Your task to perform on an android device: What's the news in Bolivia? Image 0: 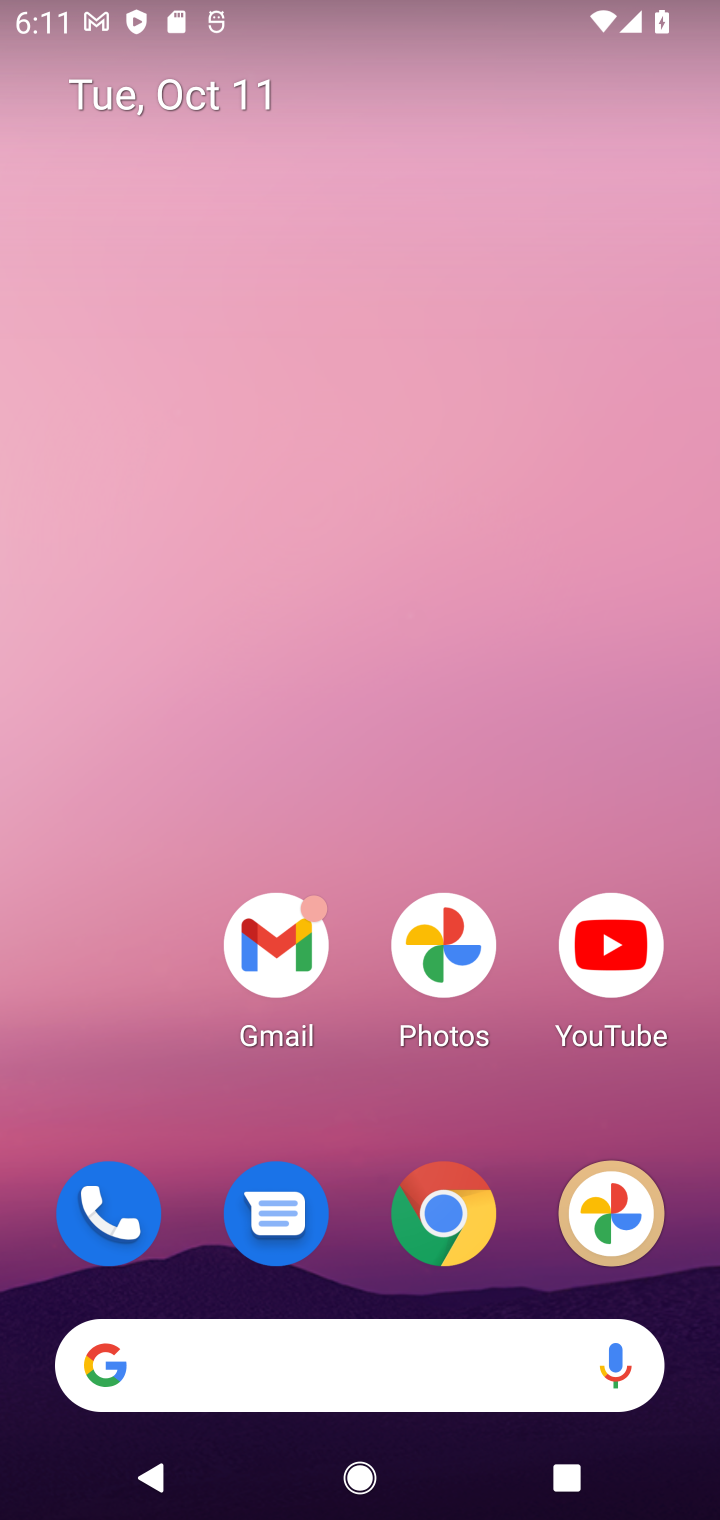
Step 0: drag from (288, 1305) to (201, 552)
Your task to perform on an android device: What's the news in Bolivia? Image 1: 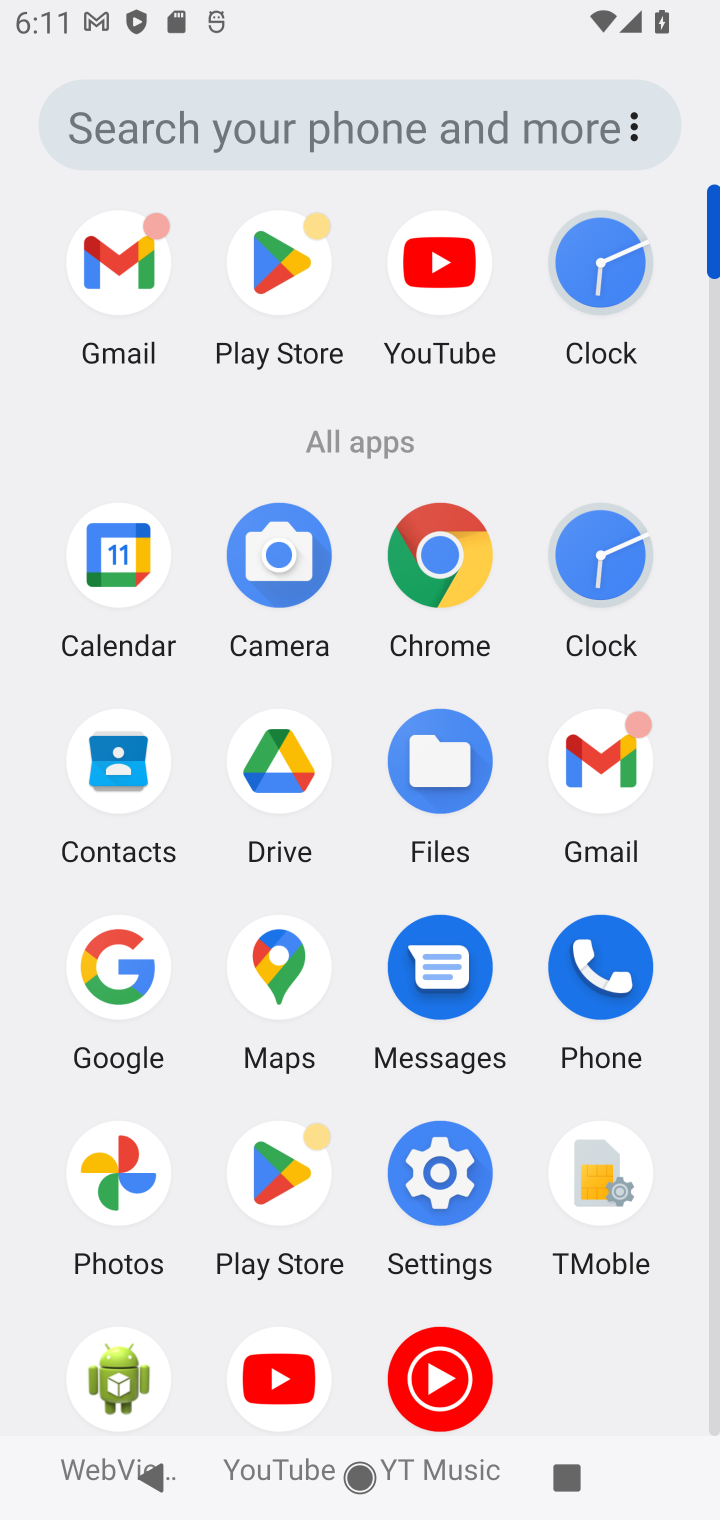
Step 1: click (94, 959)
Your task to perform on an android device: What's the news in Bolivia? Image 2: 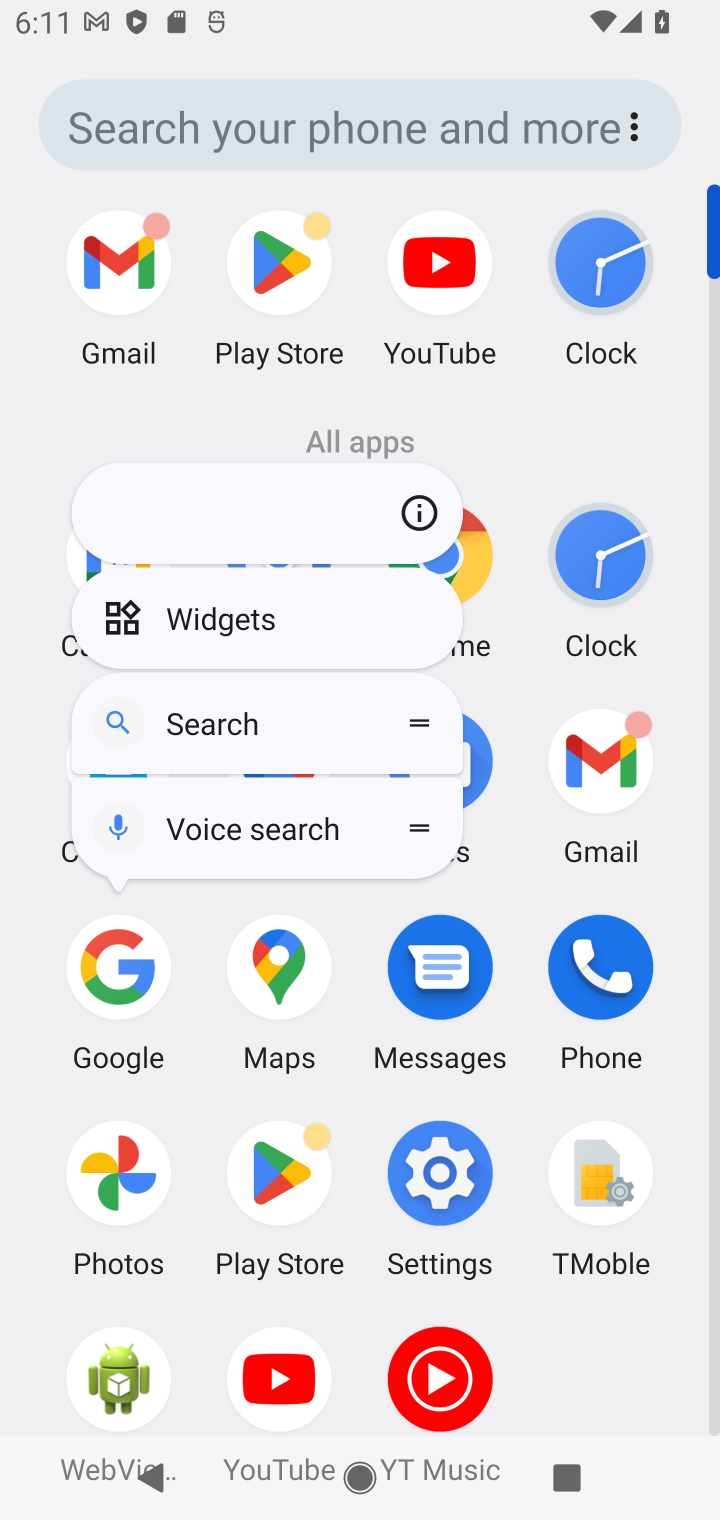
Step 2: click (134, 954)
Your task to perform on an android device: What's the news in Bolivia? Image 3: 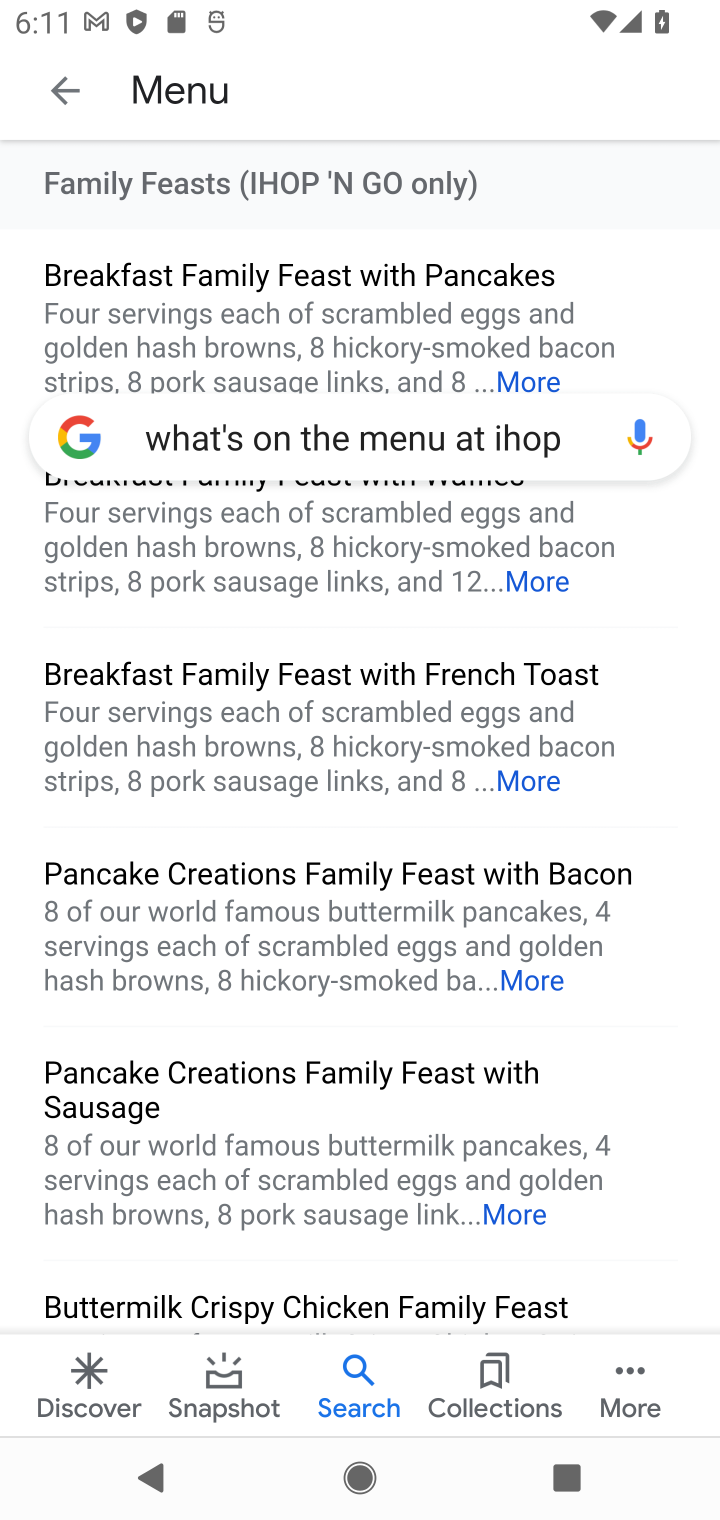
Step 3: click (330, 433)
Your task to perform on an android device: What's the news in Bolivia? Image 4: 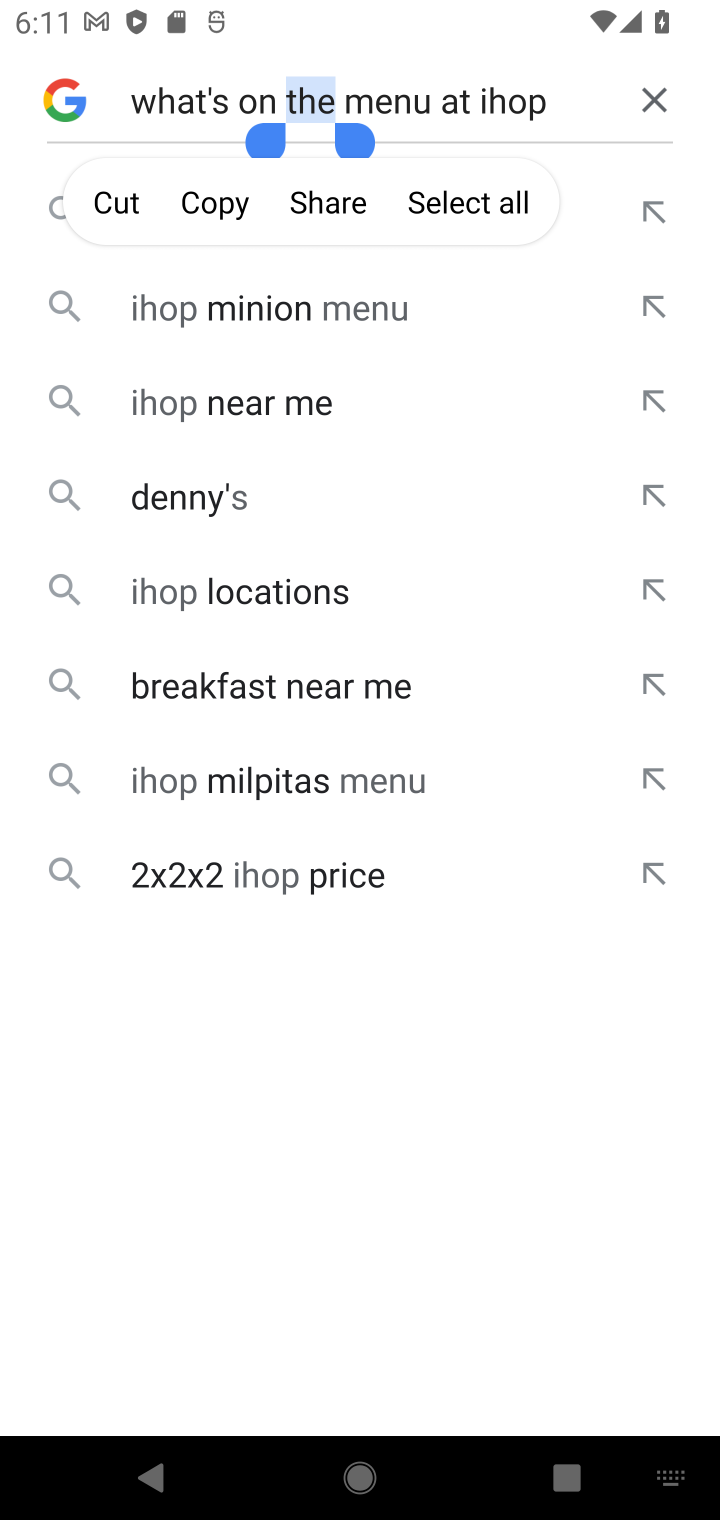
Step 4: click (632, 91)
Your task to perform on an android device: What's the news in Bolivia? Image 5: 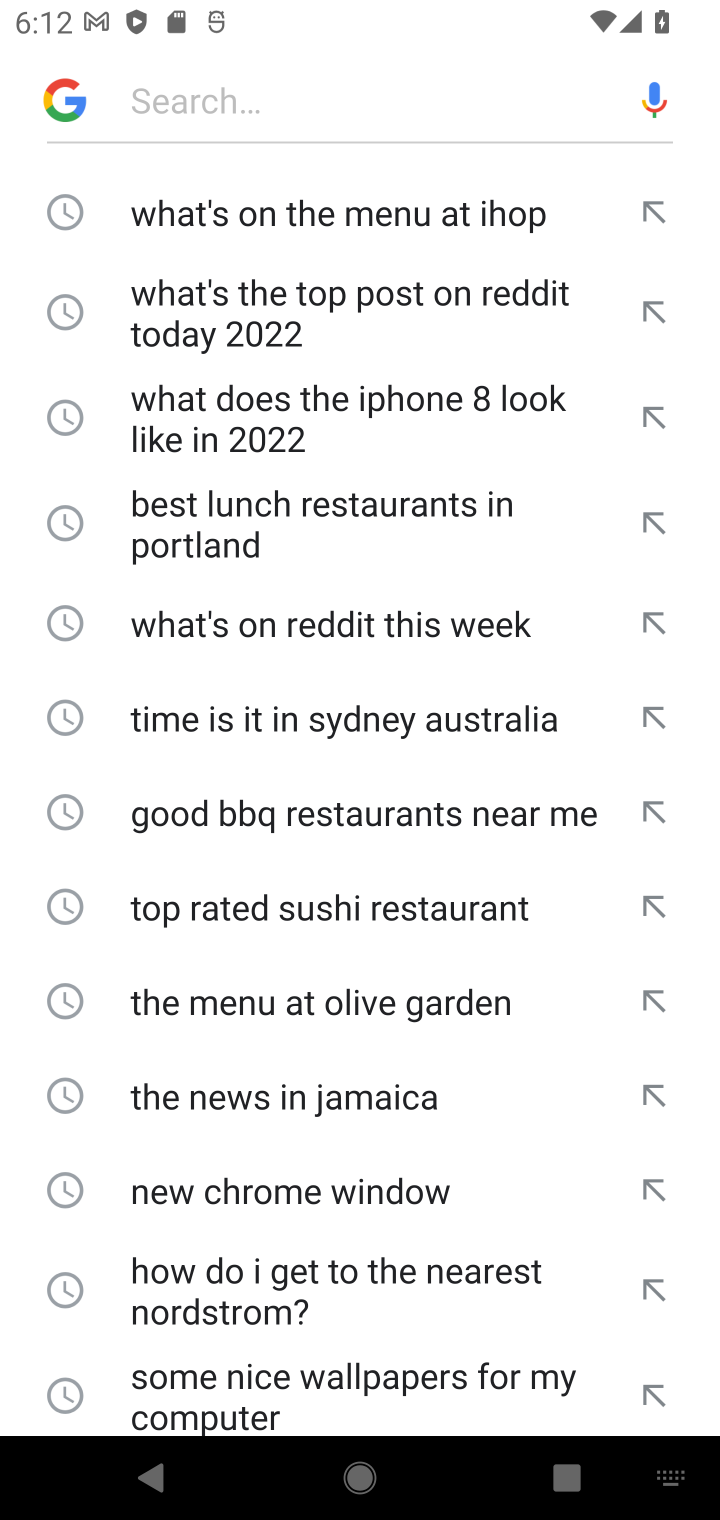
Step 5: click (425, 92)
Your task to perform on an android device: What's the news in Bolivia? Image 6: 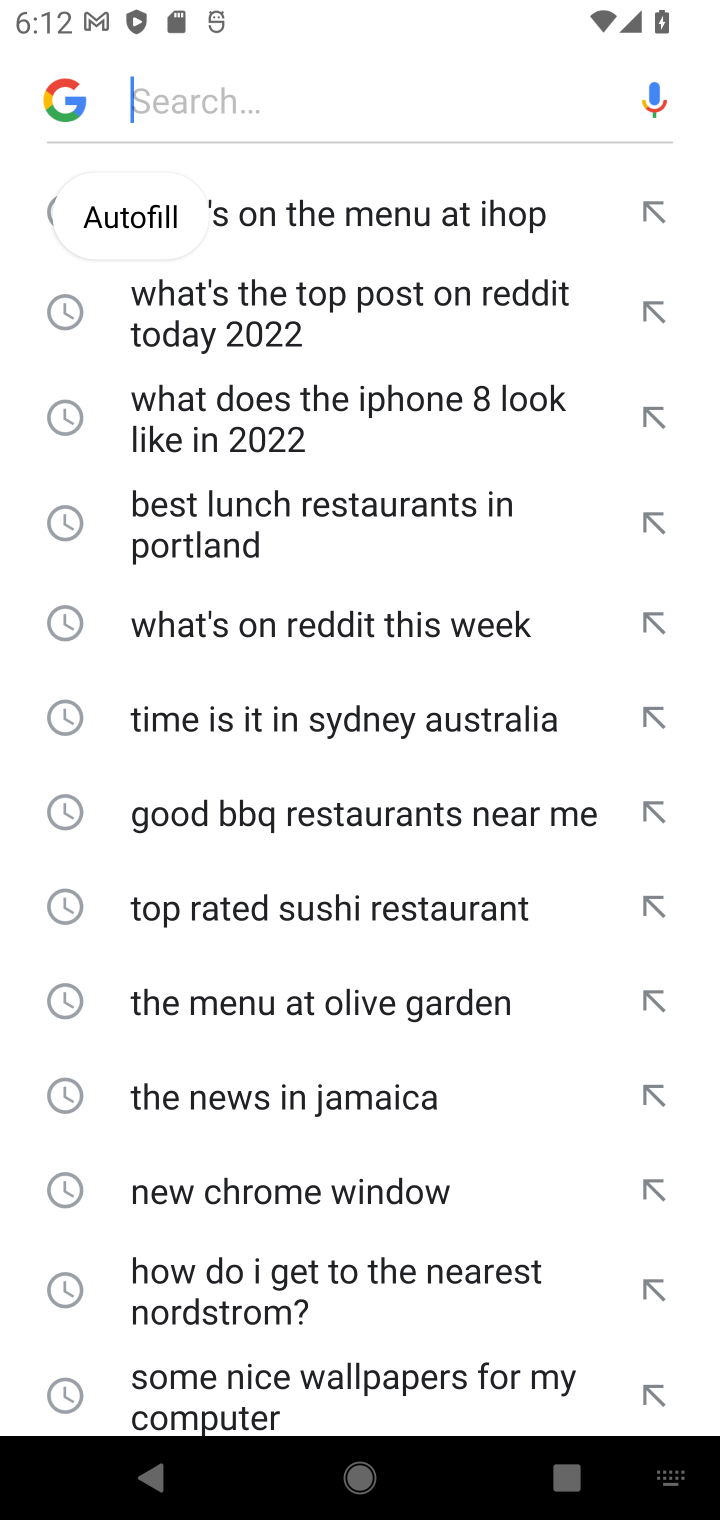
Step 6: click (163, 77)
Your task to perform on an android device: What's the news in Bolivia? Image 7: 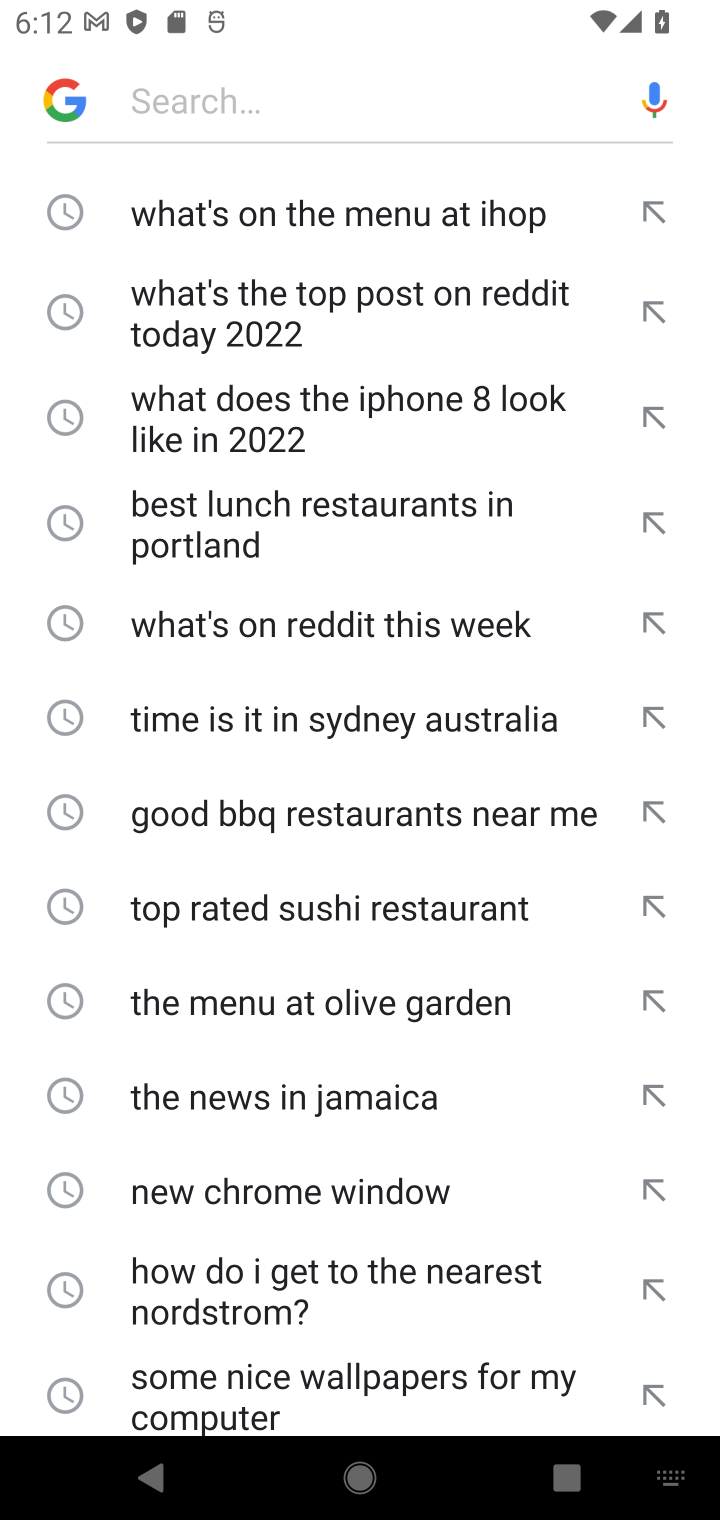
Step 7: type "What's the news in Bolivia? "
Your task to perform on an android device: What's the news in Bolivia? Image 8: 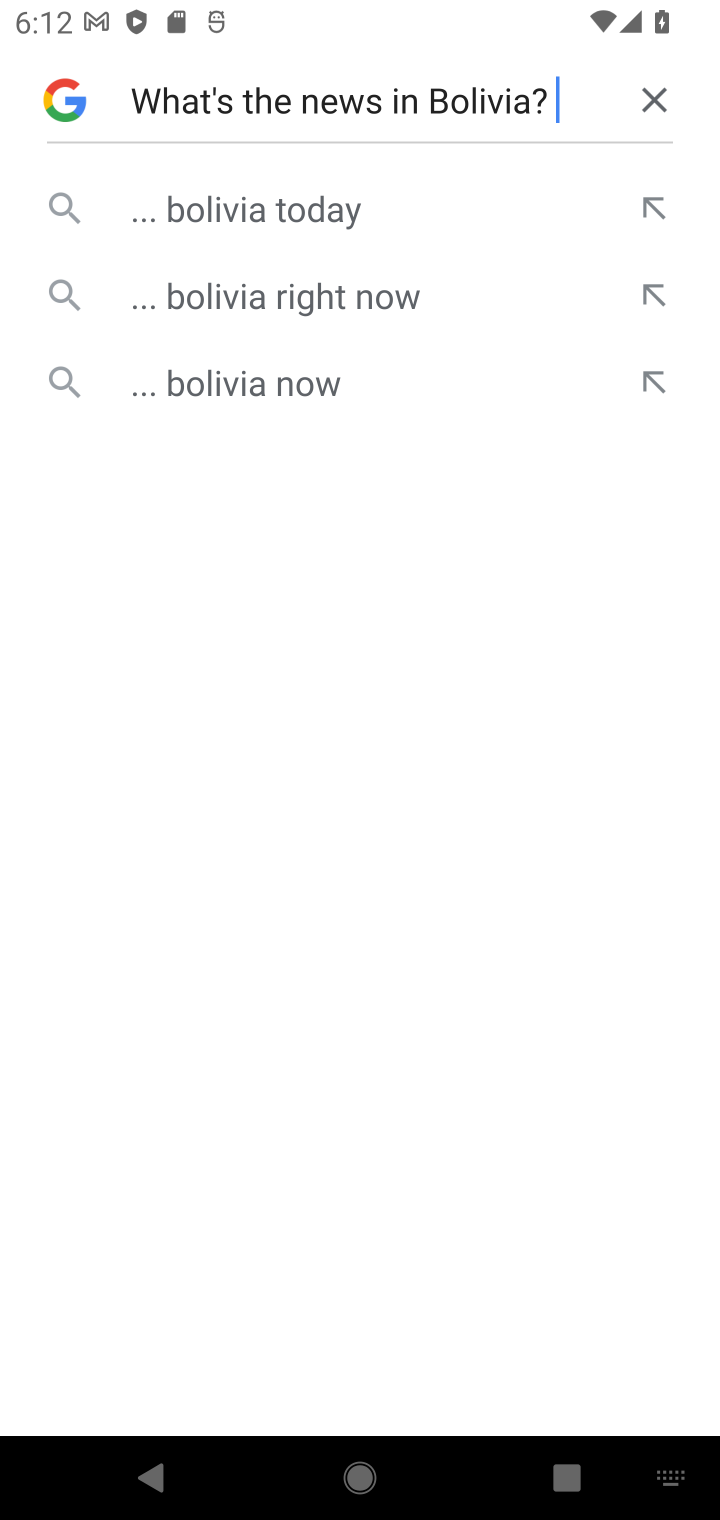
Step 8: click (298, 214)
Your task to perform on an android device: What's the news in Bolivia? Image 9: 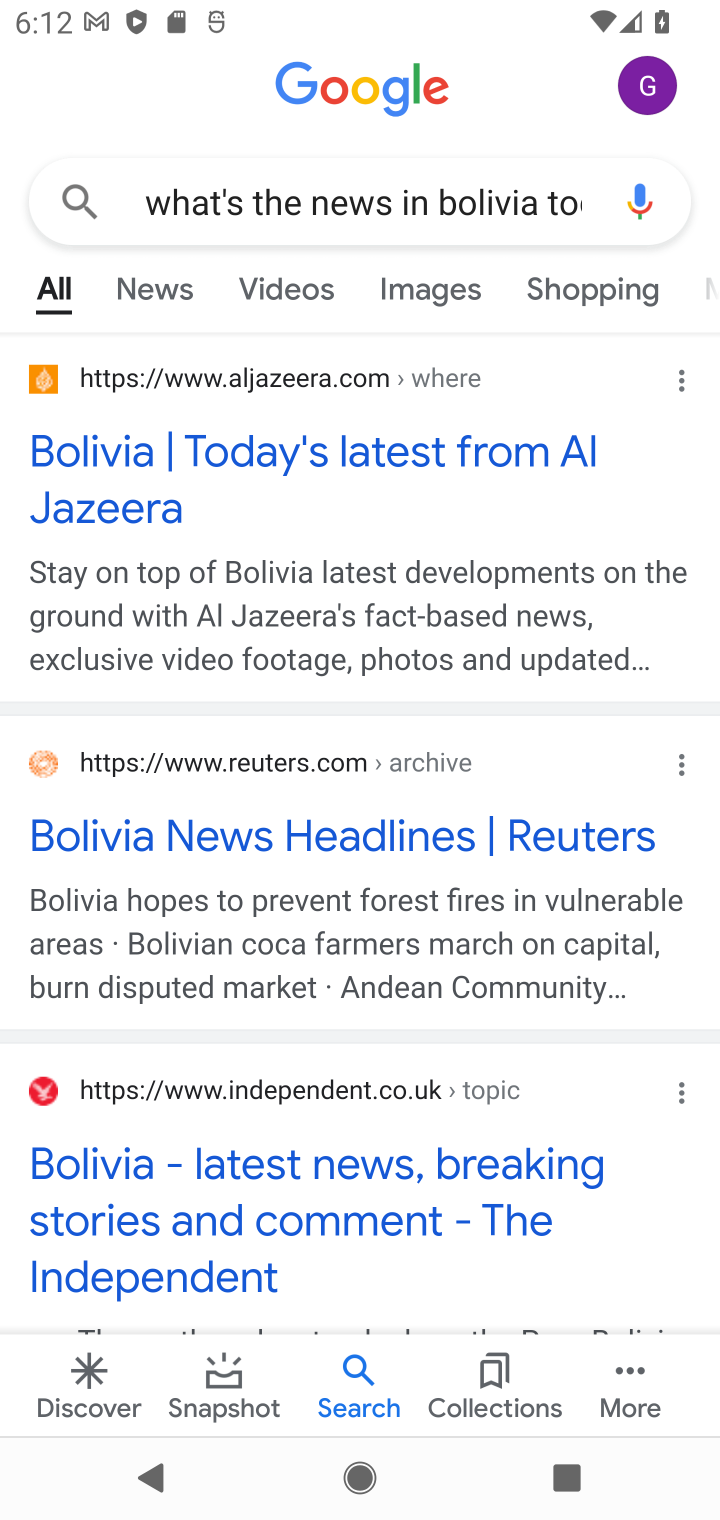
Step 9: click (269, 451)
Your task to perform on an android device: What's the news in Bolivia? Image 10: 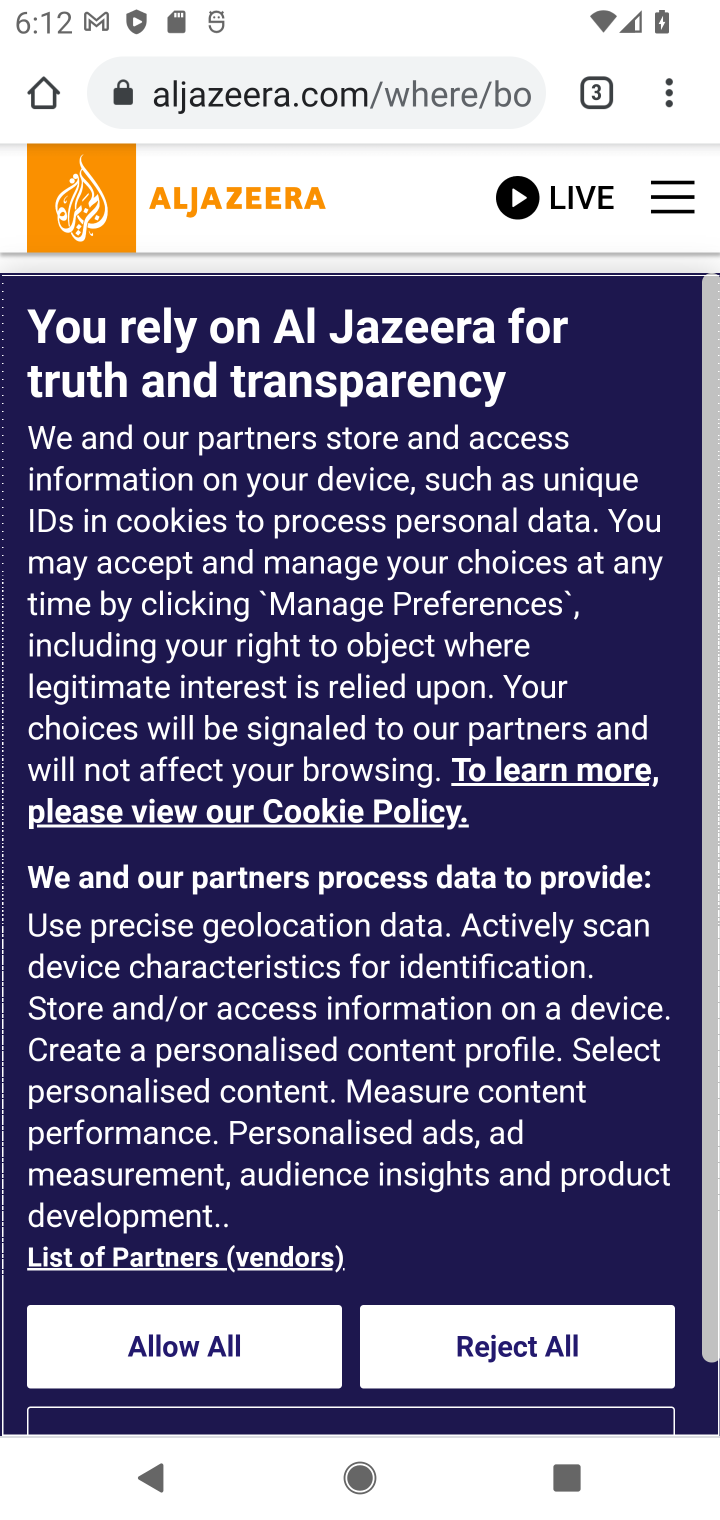
Step 10: click (173, 1358)
Your task to perform on an android device: What's the news in Bolivia? Image 11: 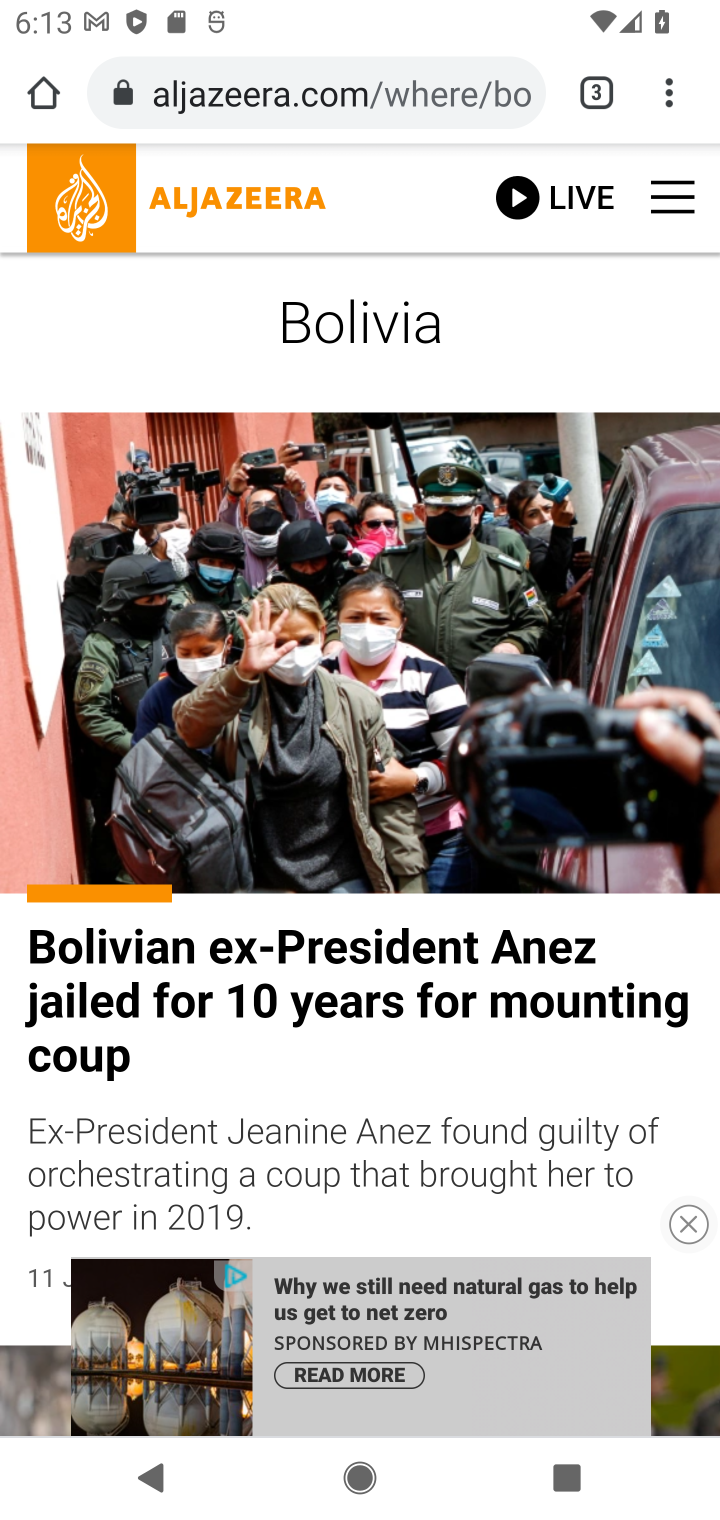
Step 11: drag from (290, 1218) to (353, 479)
Your task to perform on an android device: What's the news in Bolivia? Image 12: 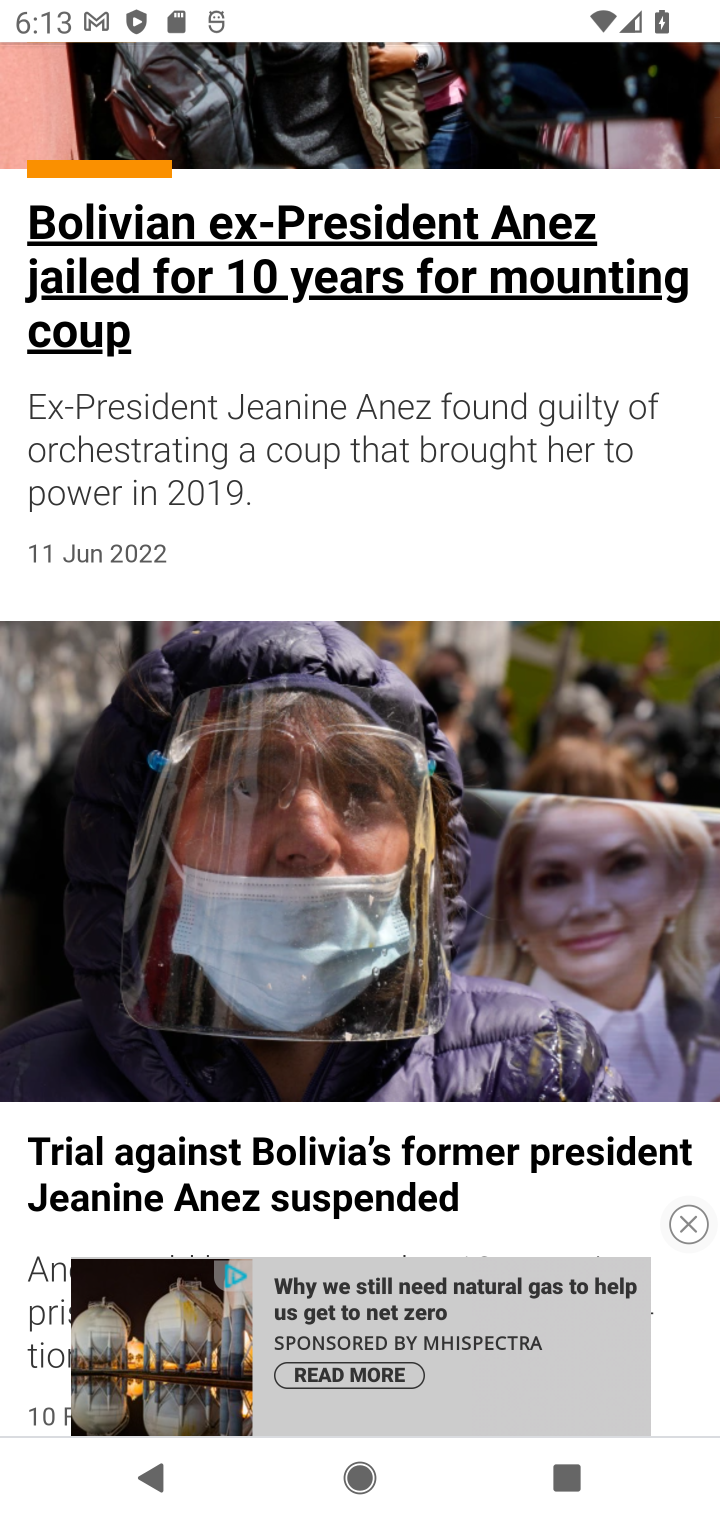
Step 12: click (684, 1230)
Your task to perform on an android device: What's the news in Bolivia? Image 13: 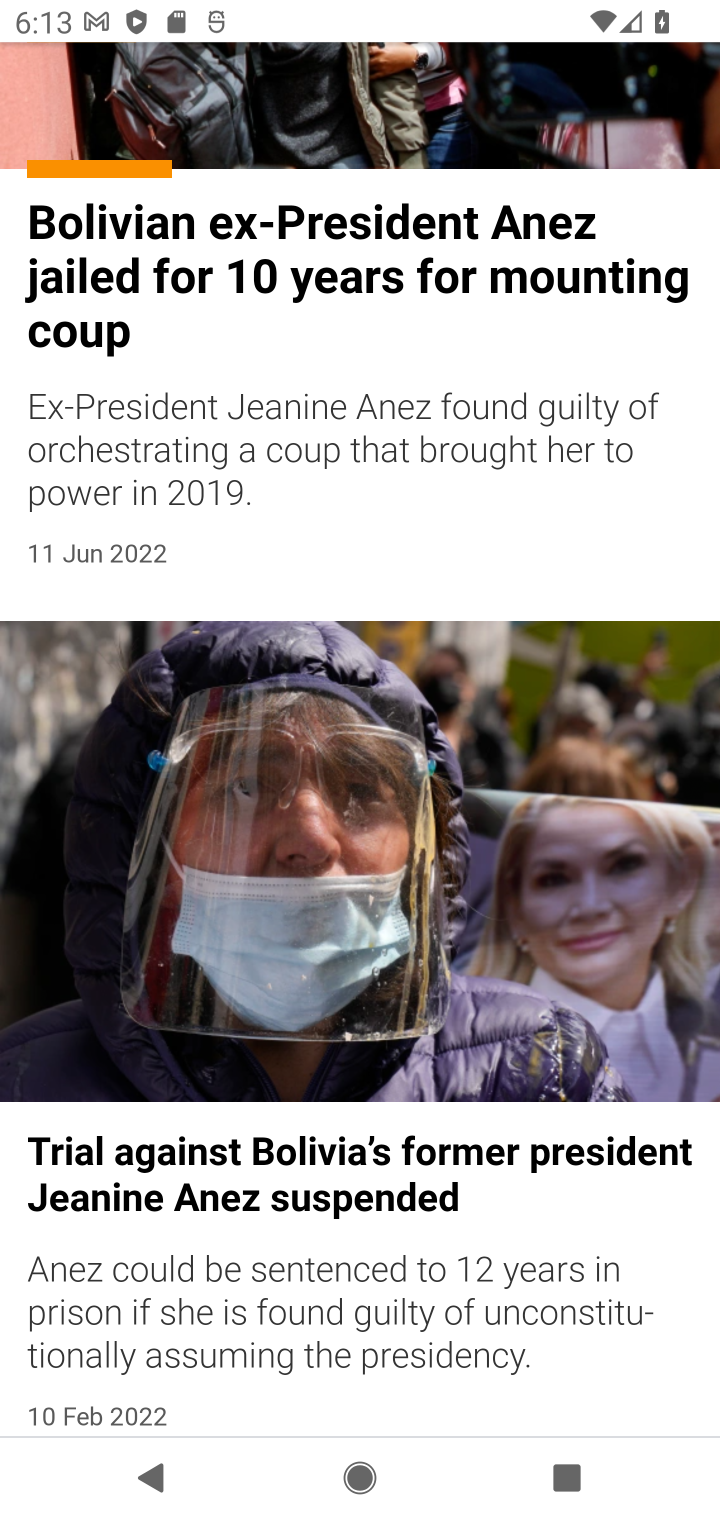
Step 13: task complete